Your task to perform on an android device: all mails in gmail Image 0: 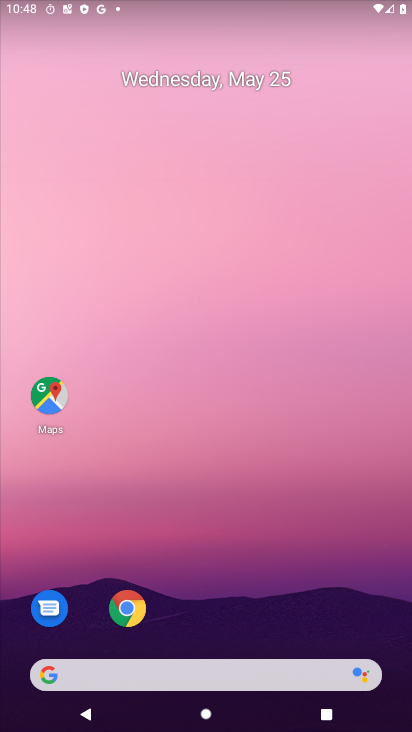
Step 0: drag from (275, 639) to (274, 5)
Your task to perform on an android device: all mails in gmail Image 1: 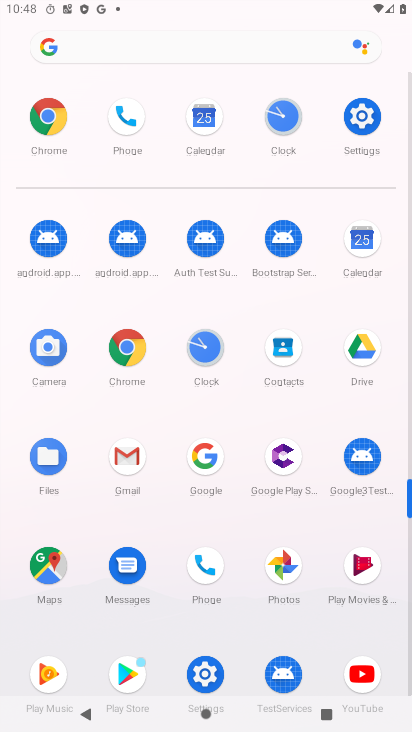
Step 1: click (125, 463)
Your task to perform on an android device: all mails in gmail Image 2: 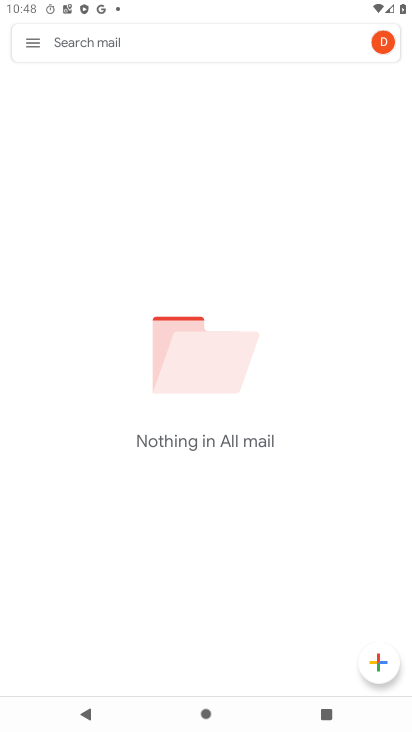
Step 2: task complete